Your task to perform on an android device: check android version Image 0: 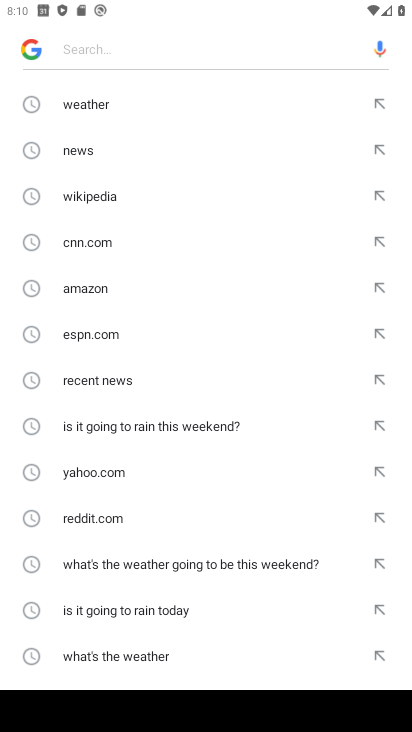
Step 0: press home button
Your task to perform on an android device: check android version Image 1: 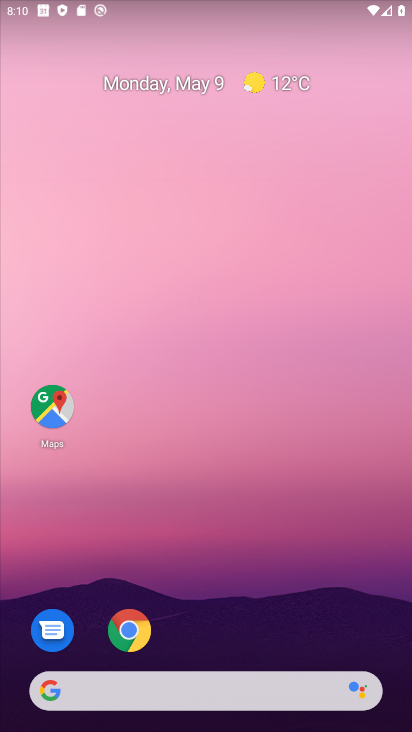
Step 1: drag from (176, 669) to (240, 330)
Your task to perform on an android device: check android version Image 2: 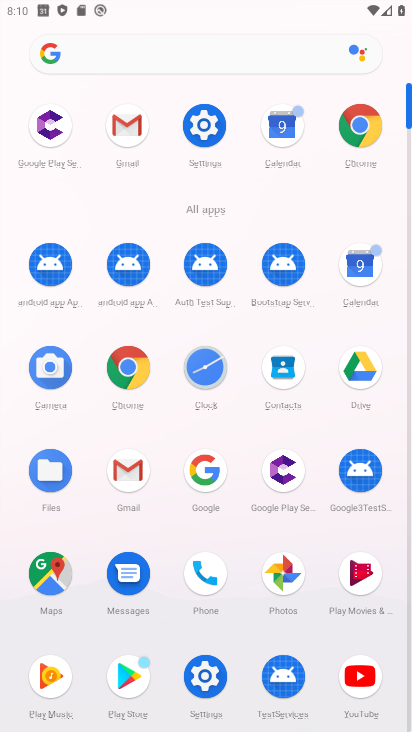
Step 2: click (212, 105)
Your task to perform on an android device: check android version Image 3: 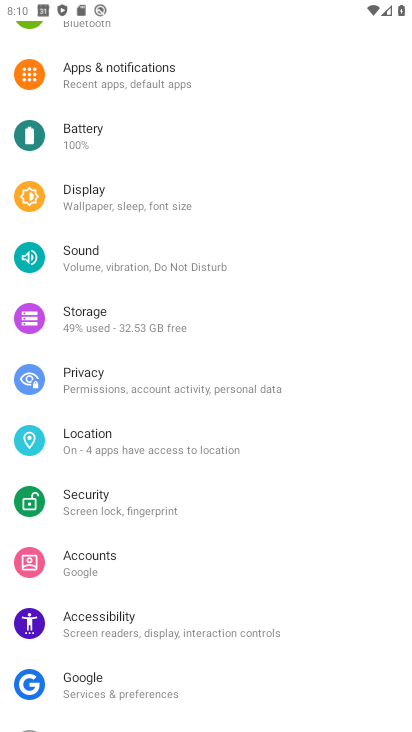
Step 3: drag from (116, 695) to (172, 356)
Your task to perform on an android device: check android version Image 4: 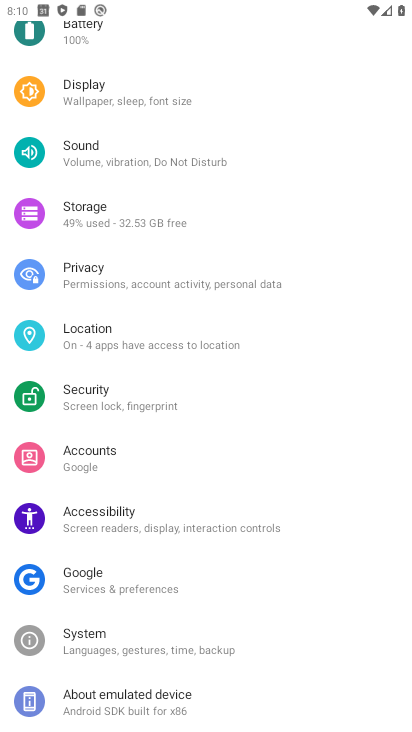
Step 4: click (140, 705)
Your task to perform on an android device: check android version Image 5: 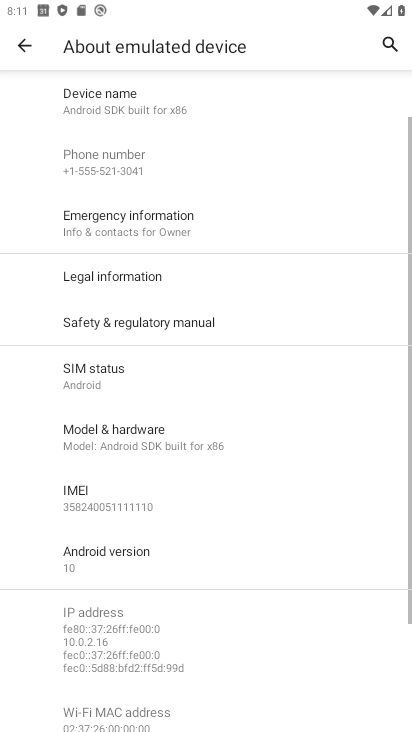
Step 5: click (110, 558)
Your task to perform on an android device: check android version Image 6: 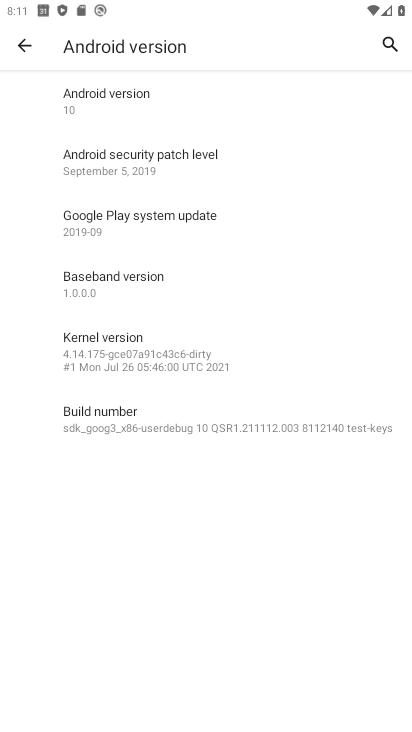
Step 6: task complete